Your task to perform on an android device: turn off notifications in google photos Image 0: 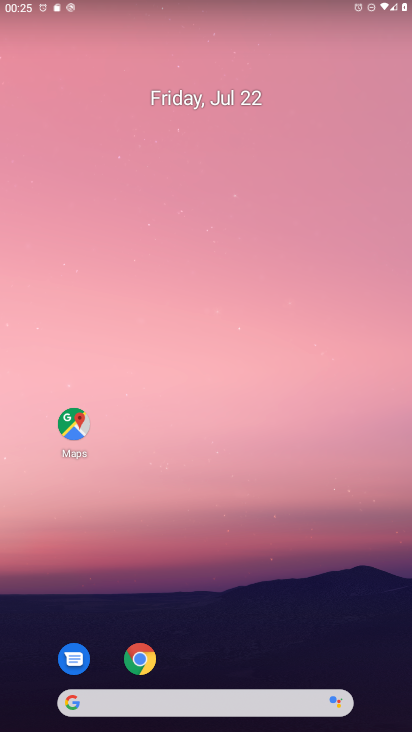
Step 0: drag from (174, 700) to (177, 49)
Your task to perform on an android device: turn off notifications in google photos Image 1: 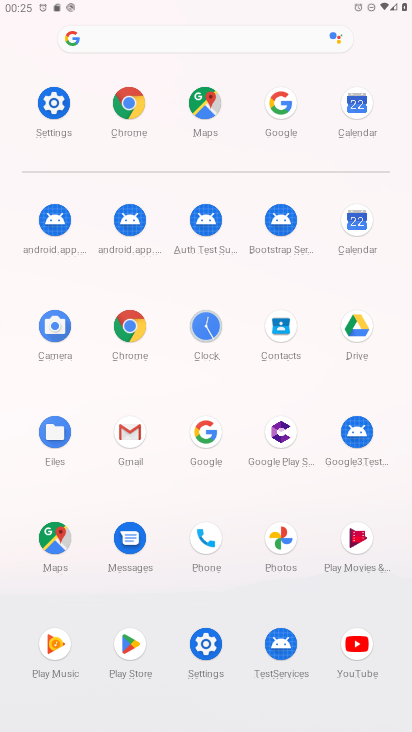
Step 1: click (282, 536)
Your task to perform on an android device: turn off notifications in google photos Image 2: 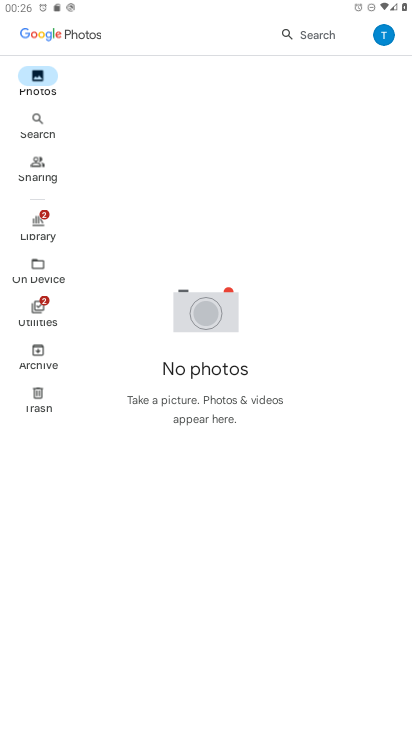
Step 2: click (383, 35)
Your task to perform on an android device: turn off notifications in google photos Image 3: 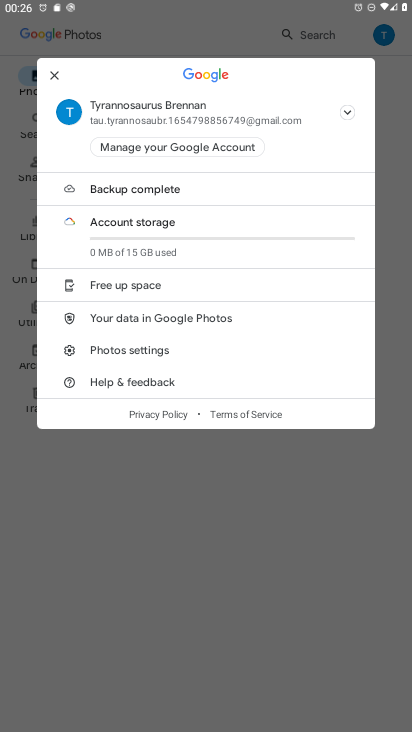
Step 3: click (139, 357)
Your task to perform on an android device: turn off notifications in google photos Image 4: 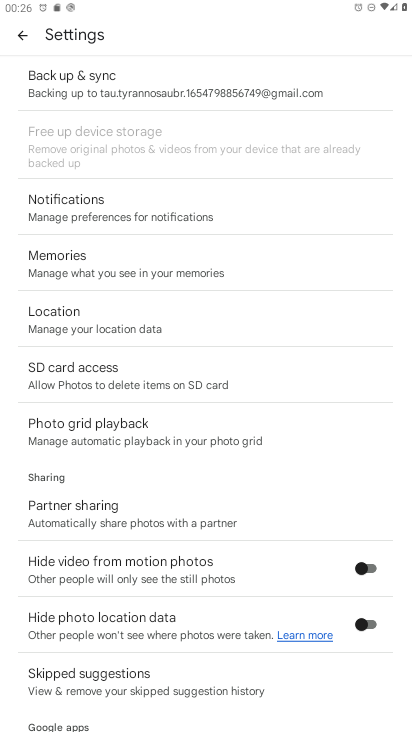
Step 4: click (140, 217)
Your task to perform on an android device: turn off notifications in google photos Image 5: 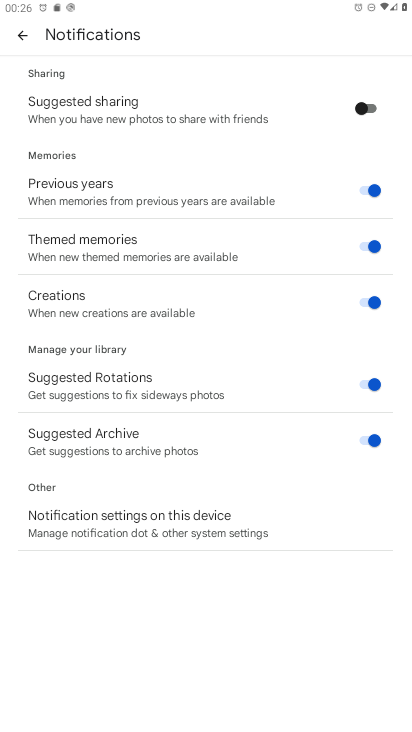
Step 5: click (130, 527)
Your task to perform on an android device: turn off notifications in google photos Image 6: 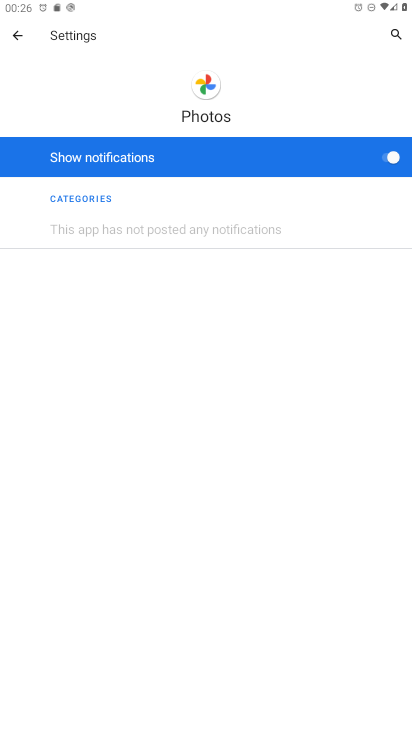
Step 6: click (384, 163)
Your task to perform on an android device: turn off notifications in google photos Image 7: 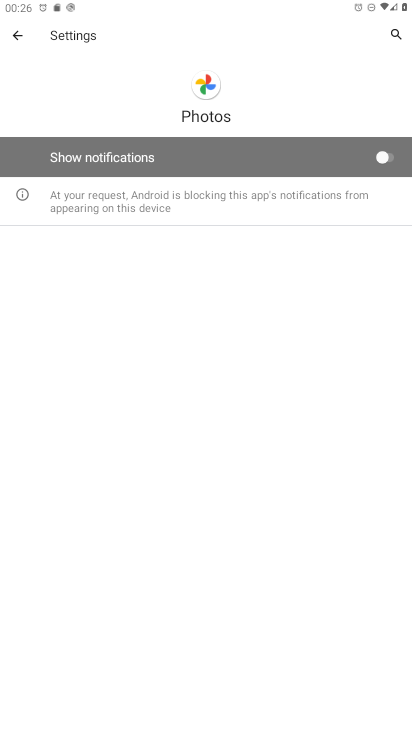
Step 7: task complete